Your task to perform on an android device: Do I have any events tomorrow? Image 0: 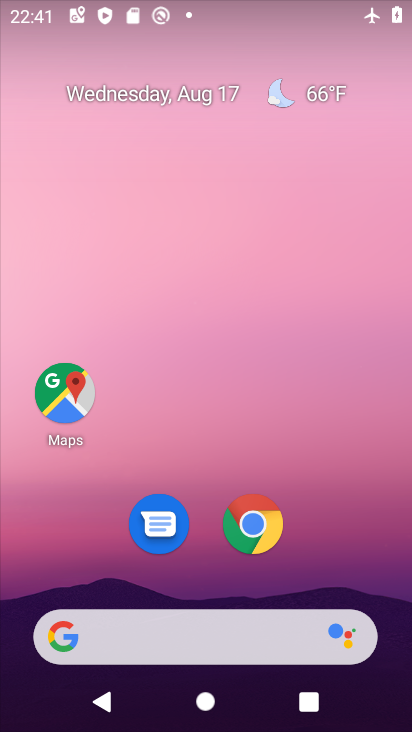
Step 0: drag from (309, 510) to (379, 0)
Your task to perform on an android device: Do I have any events tomorrow? Image 1: 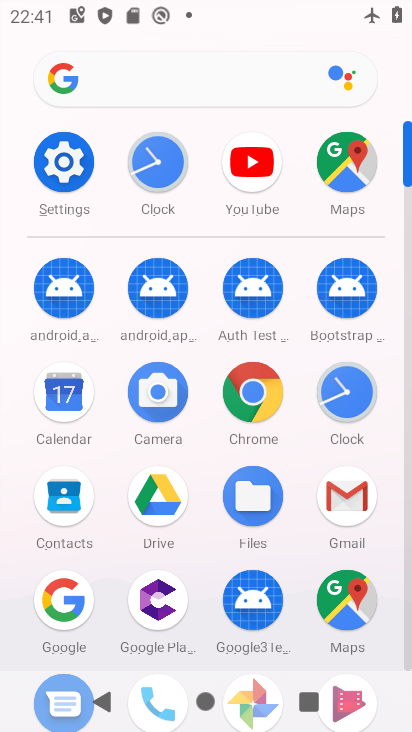
Step 1: click (54, 389)
Your task to perform on an android device: Do I have any events tomorrow? Image 2: 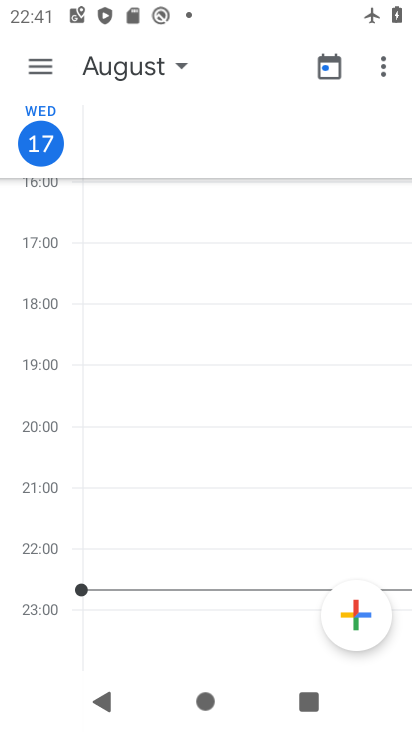
Step 2: click (46, 65)
Your task to perform on an android device: Do I have any events tomorrow? Image 3: 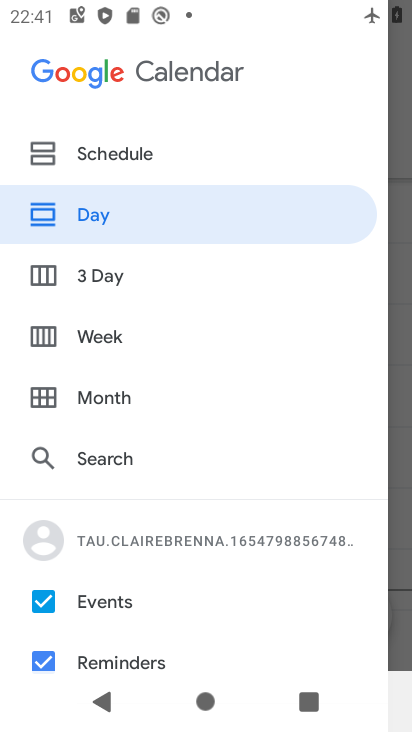
Step 3: click (44, 330)
Your task to perform on an android device: Do I have any events tomorrow? Image 4: 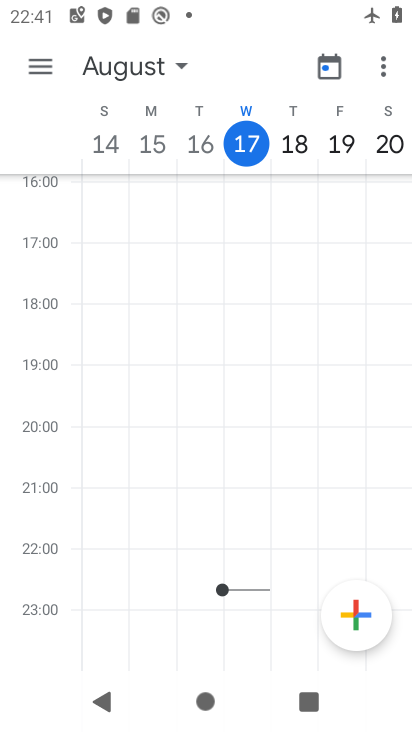
Step 4: task complete